Your task to perform on an android device: check storage Image 0: 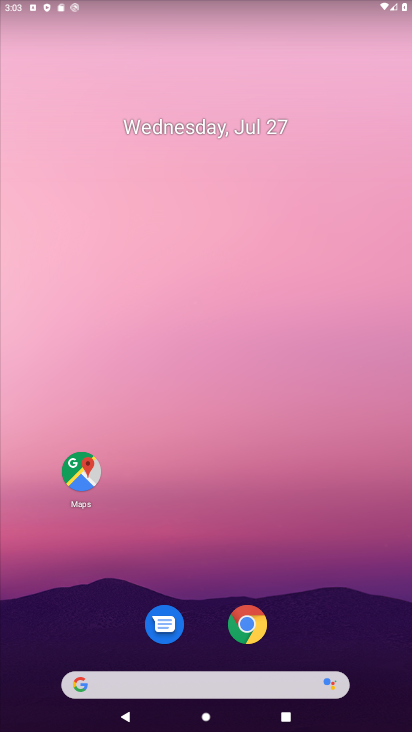
Step 0: drag from (202, 650) to (267, 191)
Your task to perform on an android device: check storage Image 1: 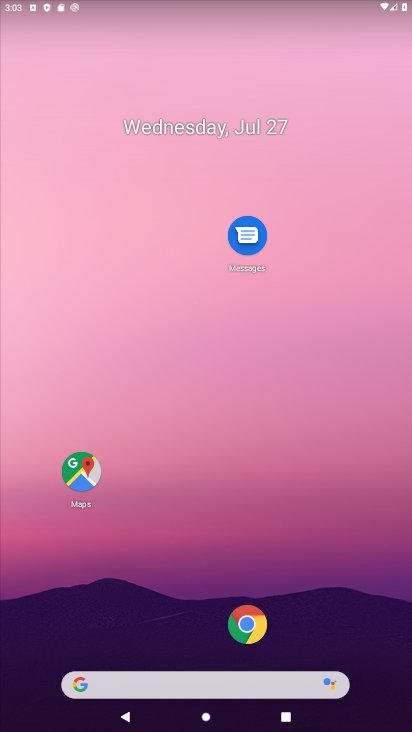
Step 1: drag from (197, 641) to (313, 56)
Your task to perform on an android device: check storage Image 2: 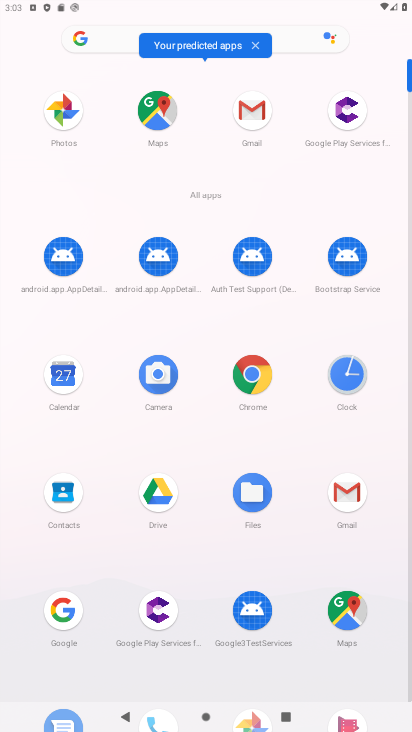
Step 2: drag from (115, 655) to (192, 316)
Your task to perform on an android device: check storage Image 3: 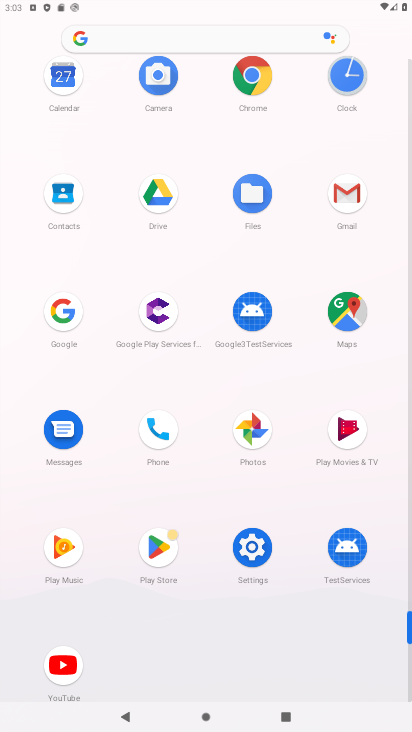
Step 3: click (236, 558)
Your task to perform on an android device: check storage Image 4: 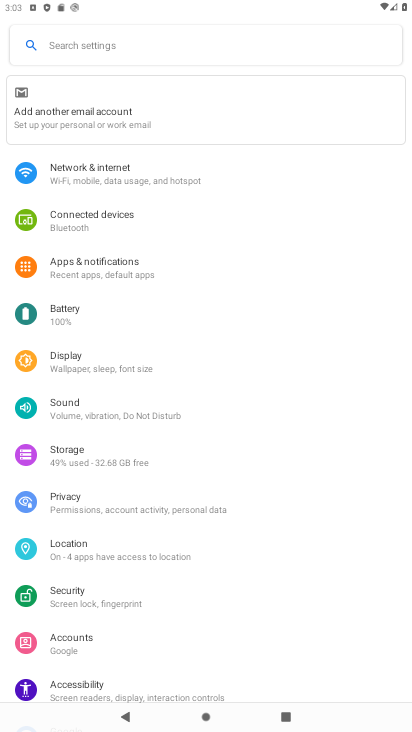
Step 4: click (129, 465)
Your task to perform on an android device: check storage Image 5: 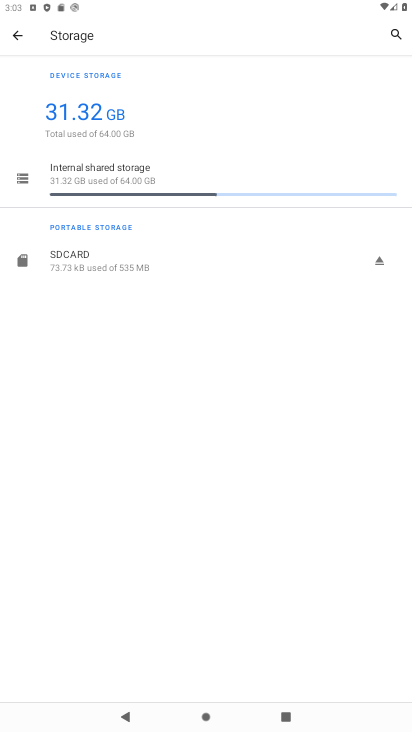
Step 5: task complete